Your task to perform on an android device: What's the news in Guyana? Image 0: 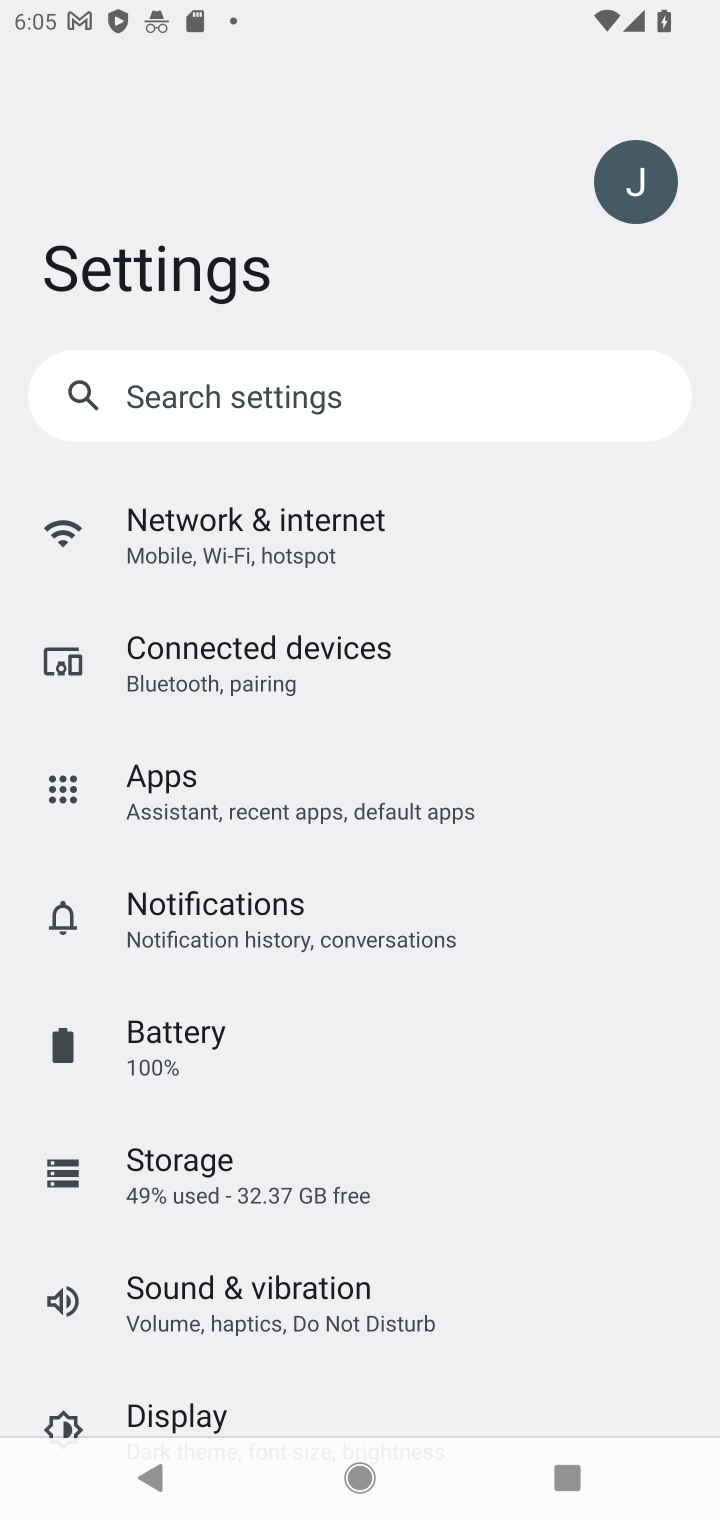
Step 0: press home button
Your task to perform on an android device: What's the news in Guyana? Image 1: 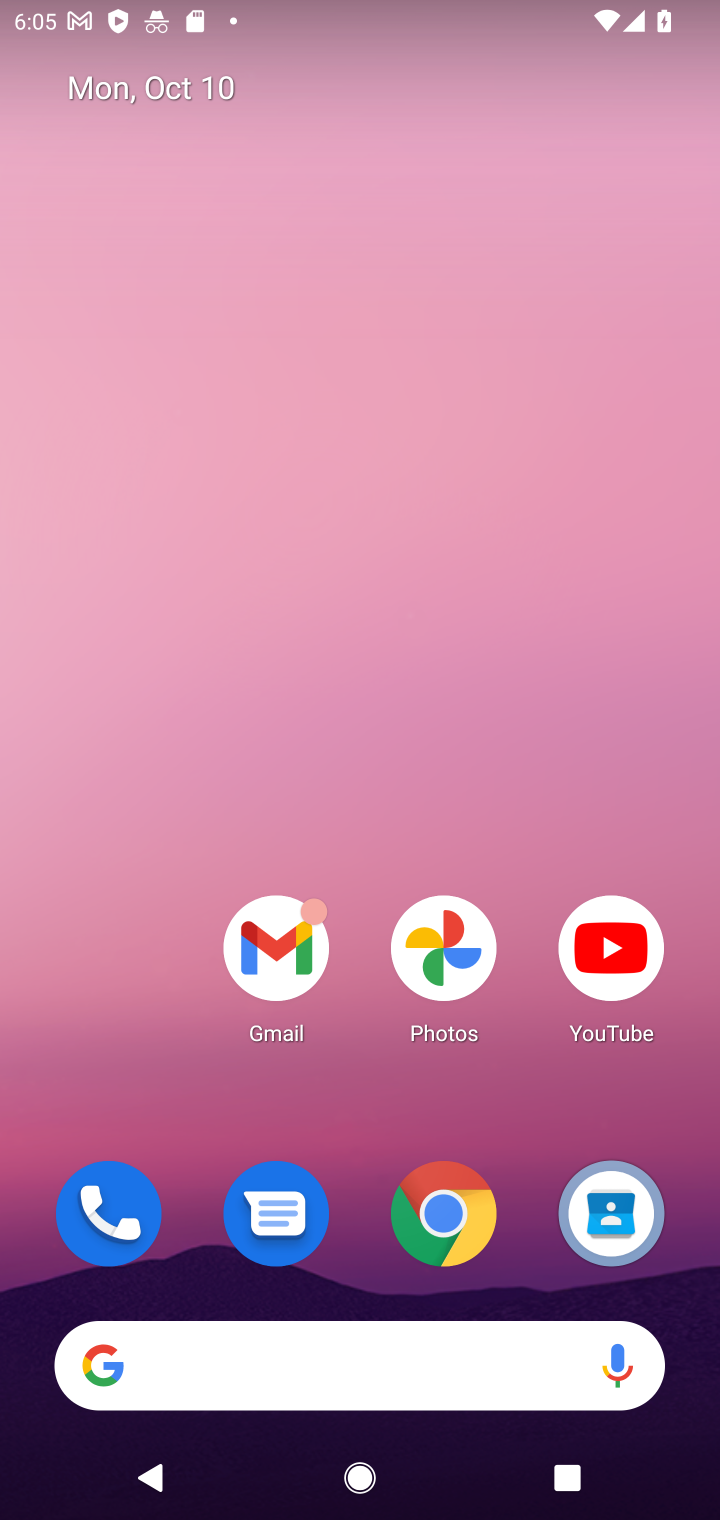
Step 1: click (405, 1371)
Your task to perform on an android device: What's the news in Guyana? Image 2: 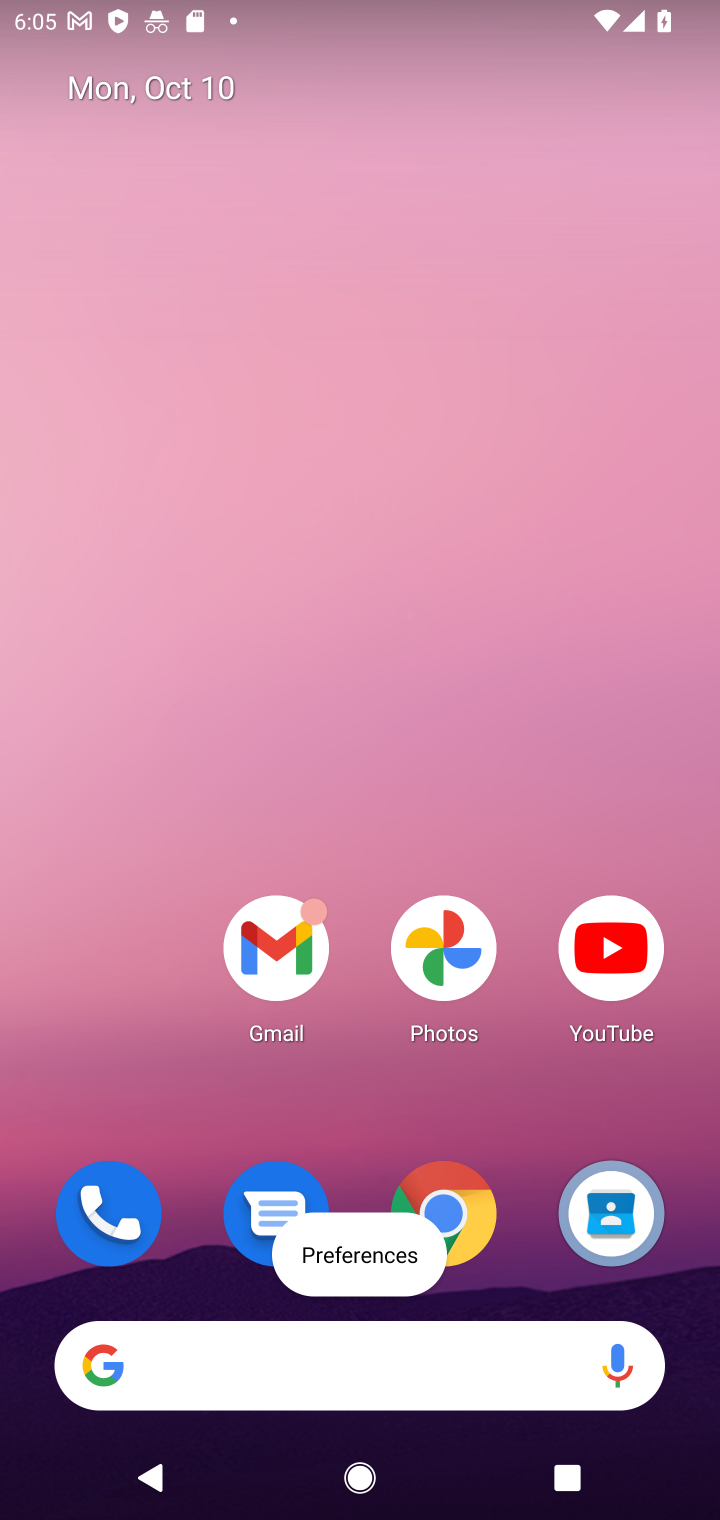
Step 2: click (338, 1338)
Your task to perform on an android device: What's the news in Guyana? Image 3: 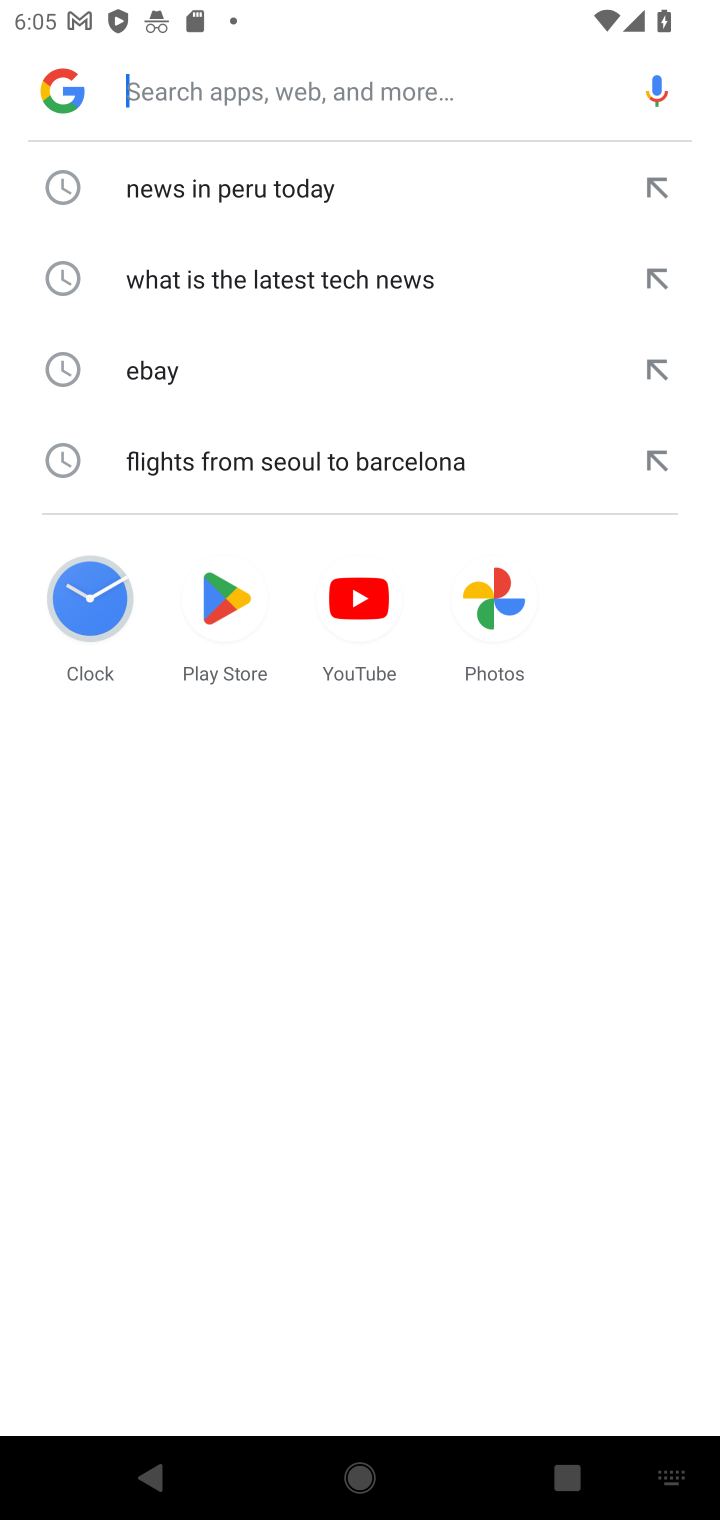
Step 3: click (245, 65)
Your task to perform on an android device: What's the news in Guyana? Image 4: 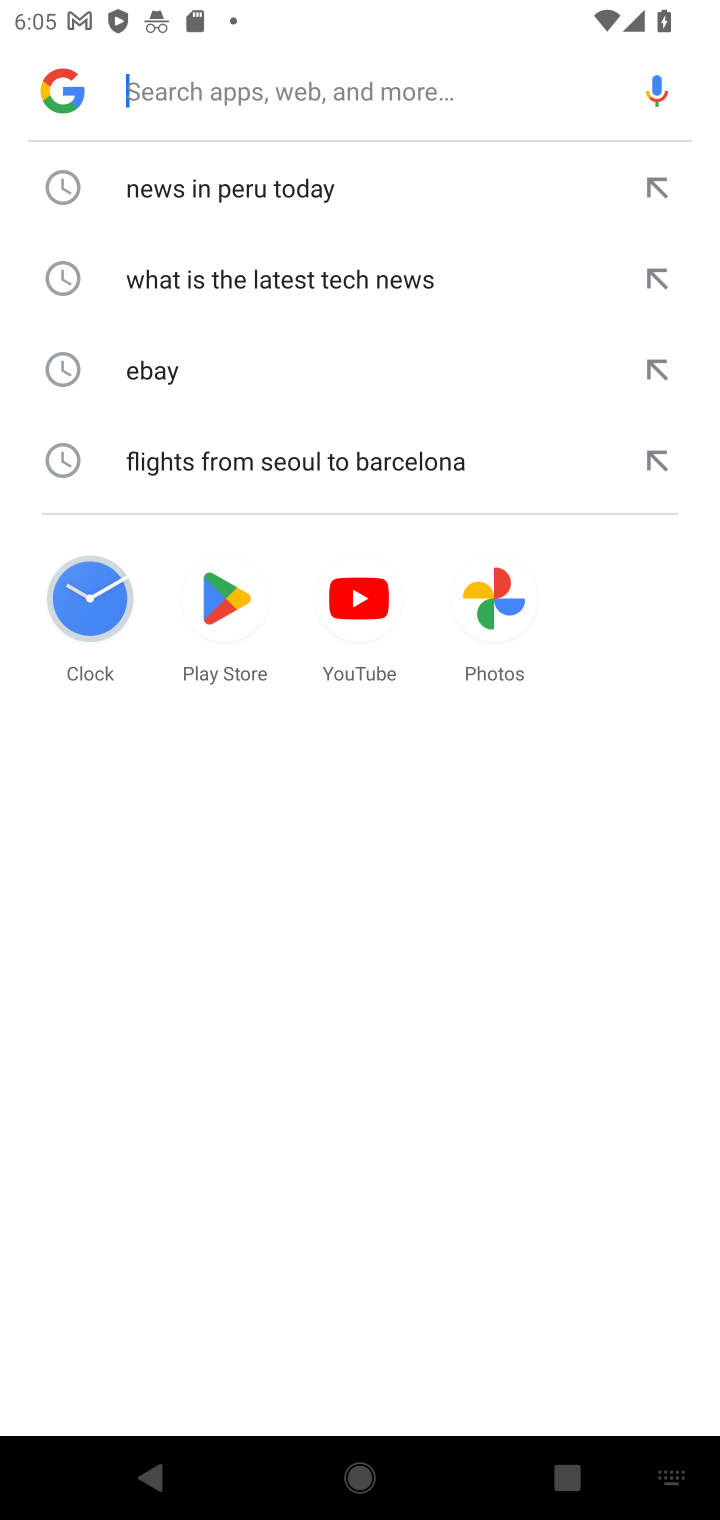
Step 4: type "What's the news in Guyana?"
Your task to perform on an android device: What's the news in Guyana? Image 5: 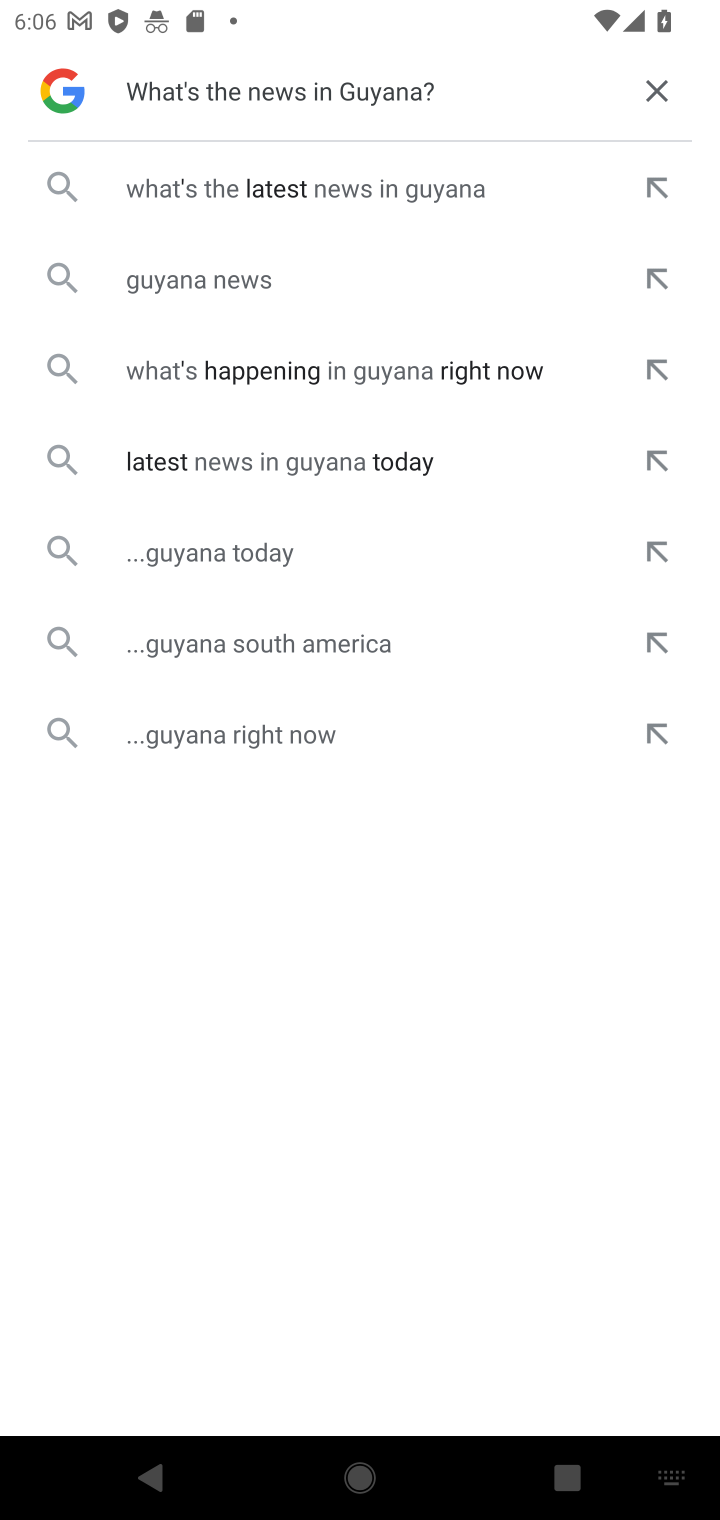
Step 5: click (453, 181)
Your task to perform on an android device: What's the news in Guyana? Image 6: 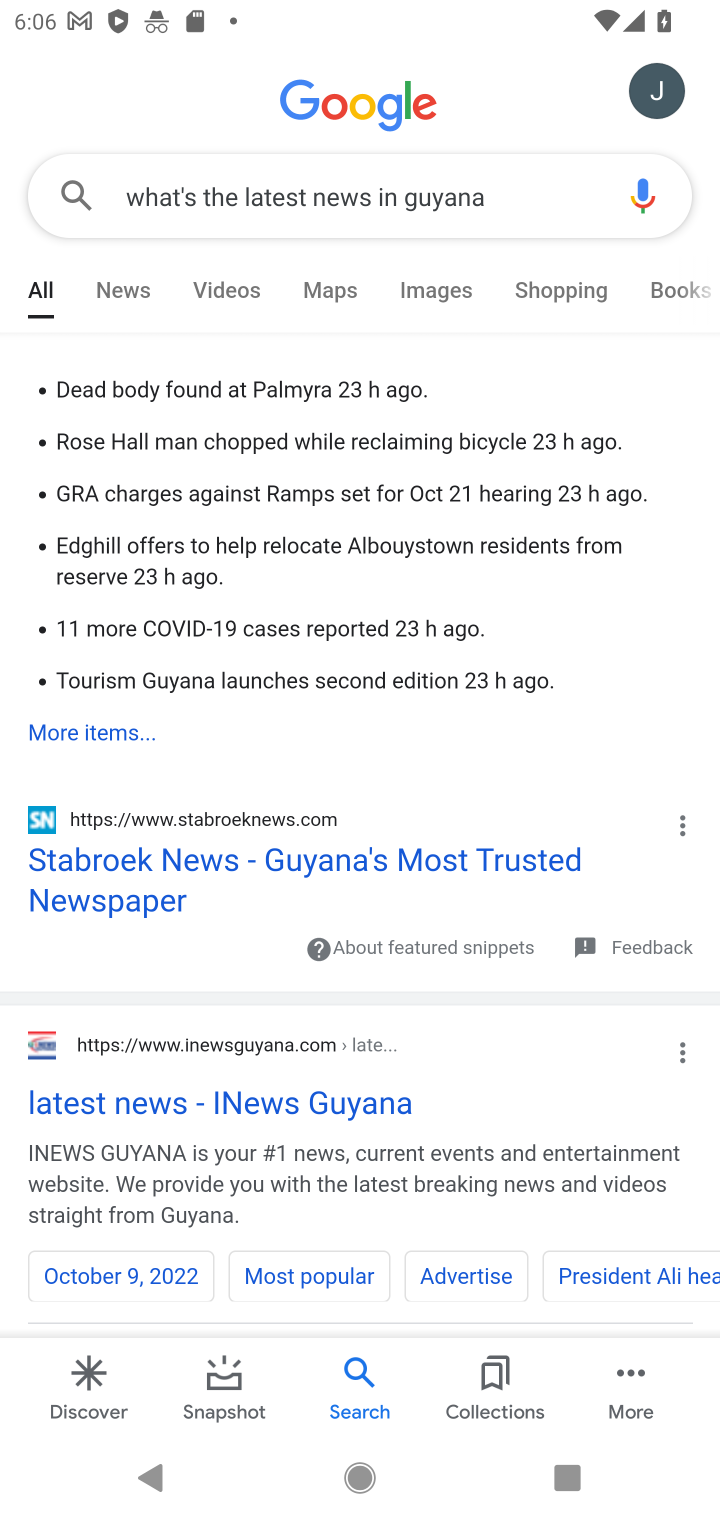
Step 6: task complete